Your task to perform on an android device: turn notification dots on Image 0: 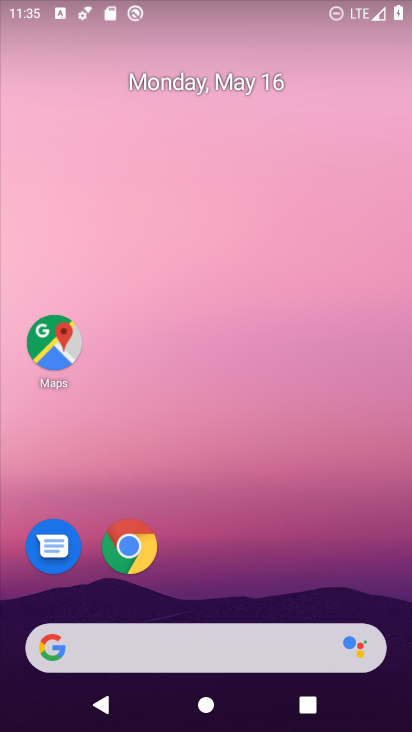
Step 0: drag from (145, 600) to (199, 128)
Your task to perform on an android device: turn notification dots on Image 1: 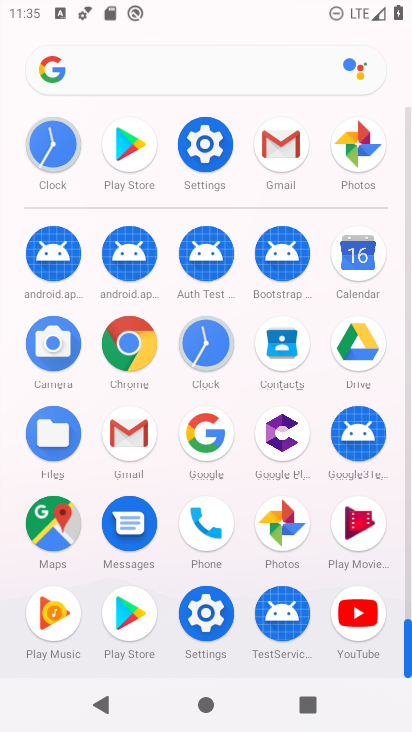
Step 1: click (224, 142)
Your task to perform on an android device: turn notification dots on Image 2: 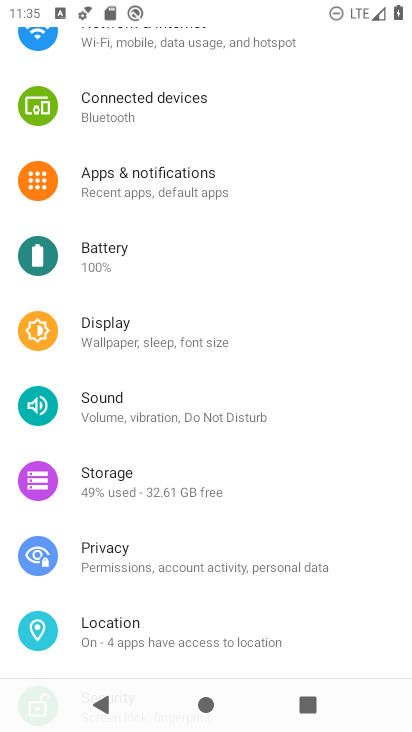
Step 2: click (225, 171)
Your task to perform on an android device: turn notification dots on Image 3: 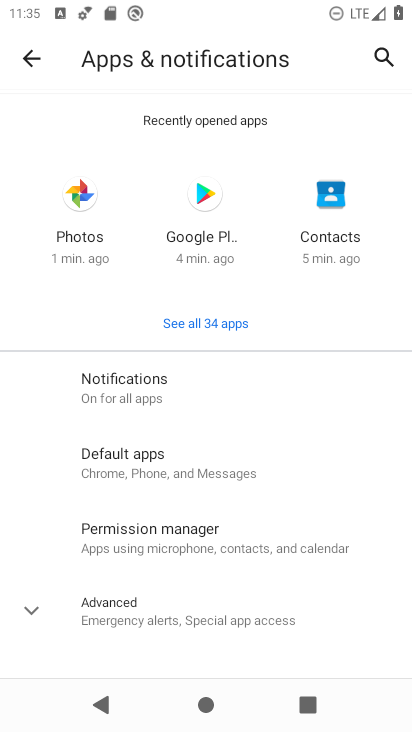
Step 3: click (202, 391)
Your task to perform on an android device: turn notification dots on Image 4: 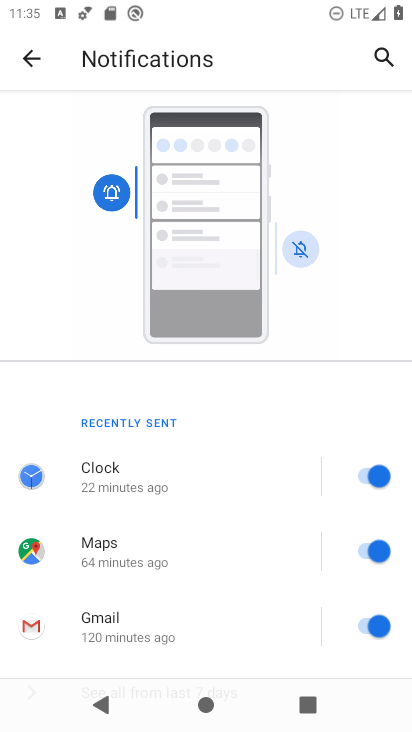
Step 4: drag from (145, 646) to (202, 100)
Your task to perform on an android device: turn notification dots on Image 5: 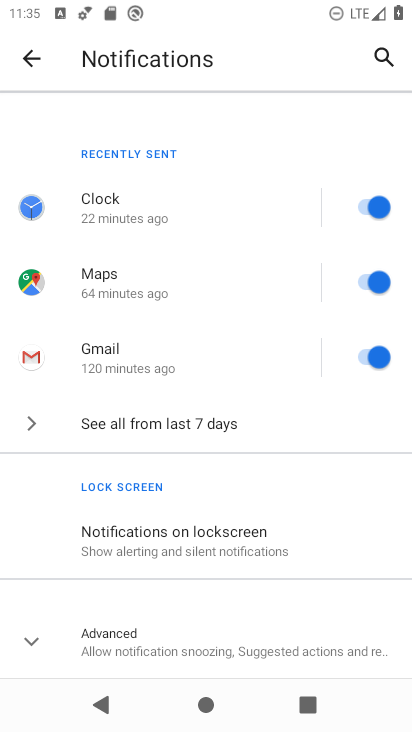
Step 5: click (170, 556)
Your task to perform on an android device: turn notification dots on Image 6: 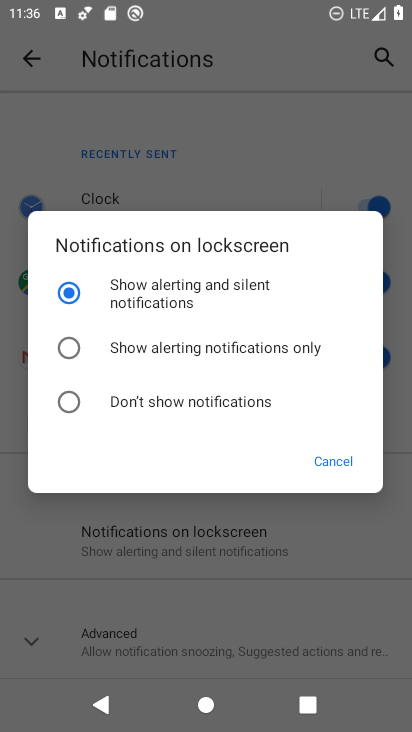
Step 6: click (337, 475)
Your task to perform on an android device: turn notification dots on Image 7: 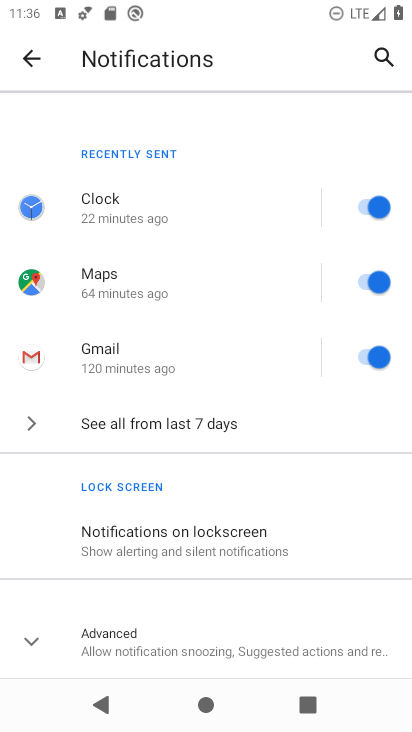
Step 7: click (328, 463)
Your task to perform on an android device: turn notification dots on Image 8: 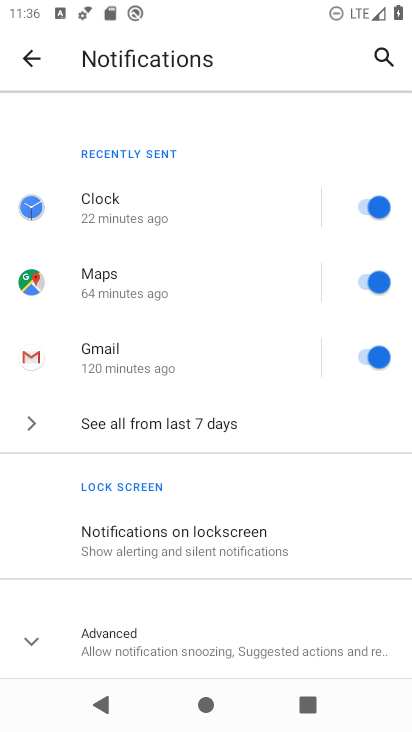
Step 8: click (115, 634)
Your task to perform on an android device: turn notification dots on Image 9: 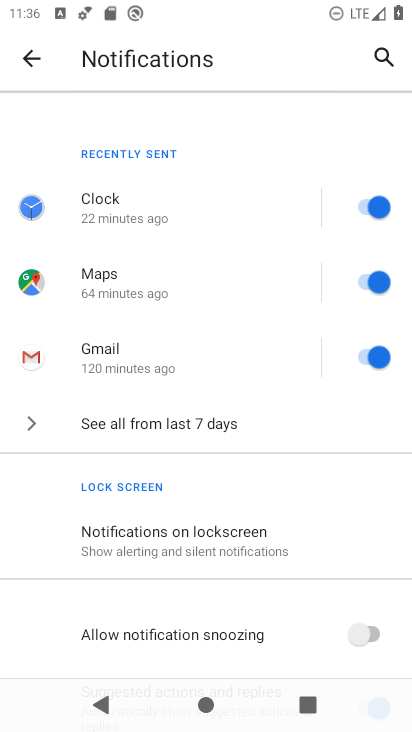
Step 9: task complete